Your task to perform on an android device: Open Google Maps Image 0: 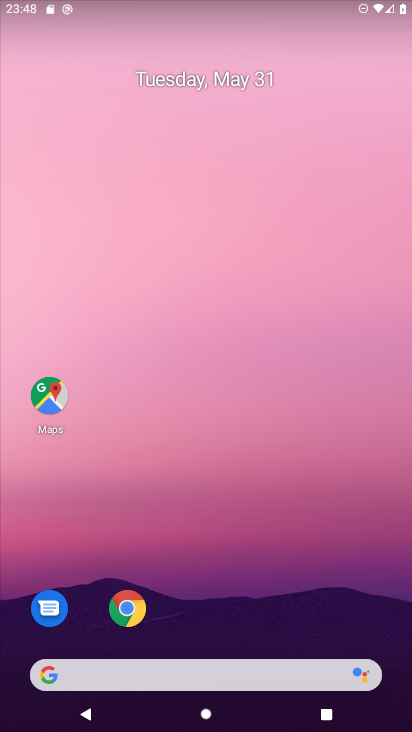
Step 0: press home button
Your task to perform on an android device: Open Google Maps Image 1: 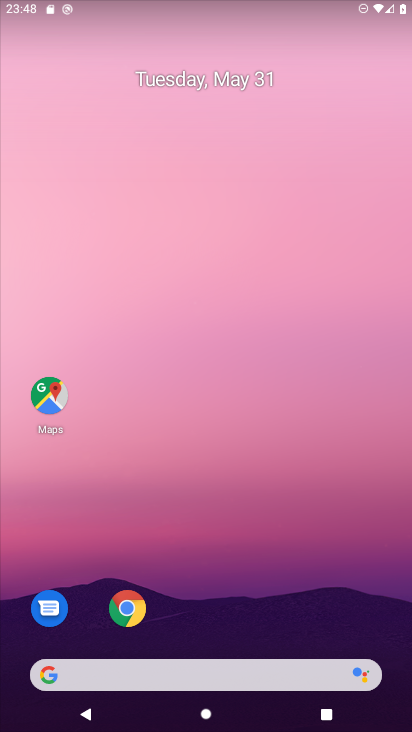
Step 1: click (48, 408)
Your task to perform on an android device: Open Google Maps Image 2: 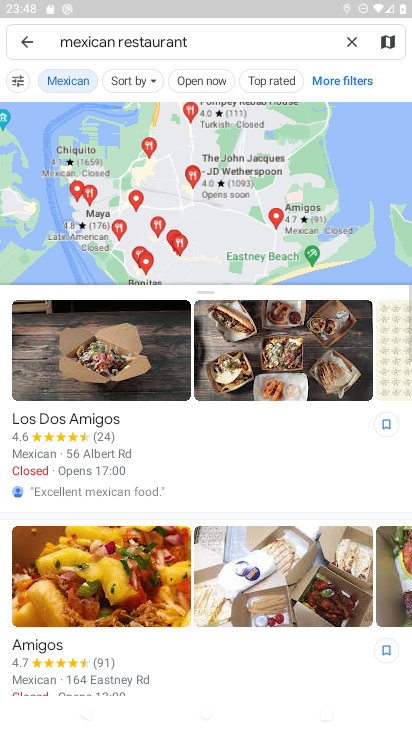
Step 2: task complete